Your task to perform on an android device: allow notifications from all sites in the chrome app Image 0: 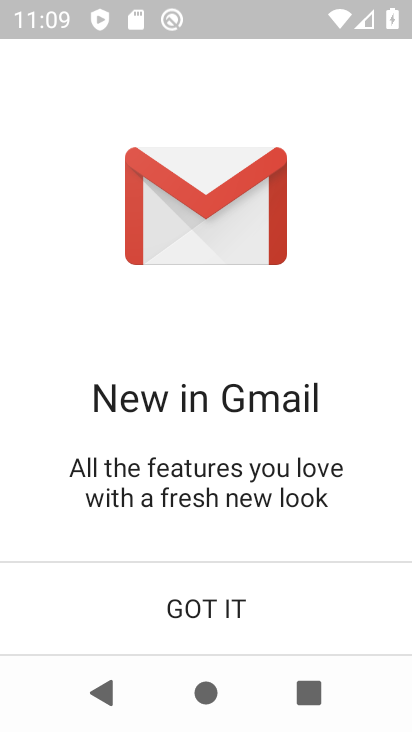
Step 0: click (374, 421)
Your task to perform on an android device: allow notifications from all sites in the chrome app Image 1: 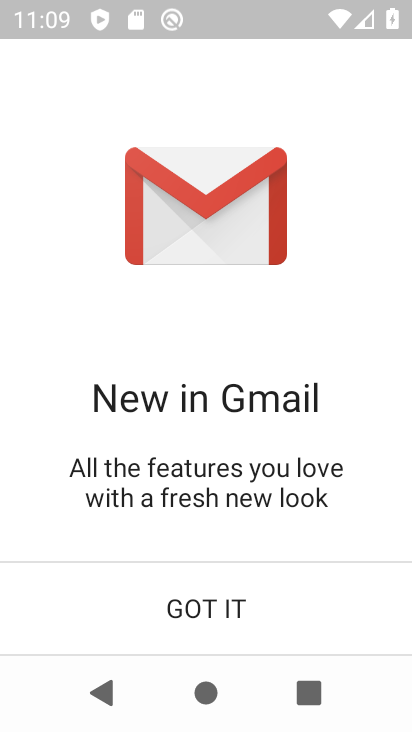
Step 1: press home button
Your task to perform on an android device: allow notifications from all sites in the chrome app Image 2: 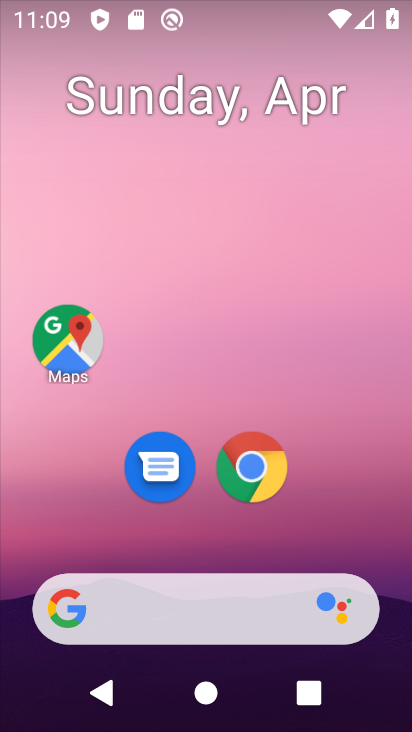
Step 2: click (252, 469)
Your task to perform on an android device: allow notifications from all sites in the chrome app Image 3: 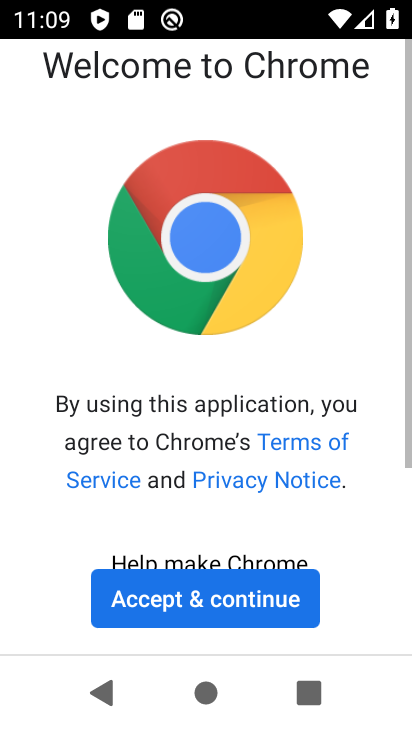
Step 3: click (160, 583)
Your task to perform on an android device: allow notifications from all sites in the chrome app Image 4: 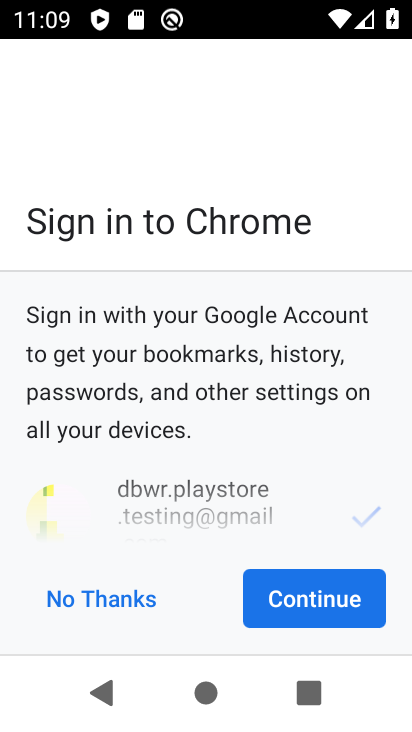
Step 4: click (259, 604)
Your task to perform on an android device: allow notifications from all sites in the chrome app Image 5: 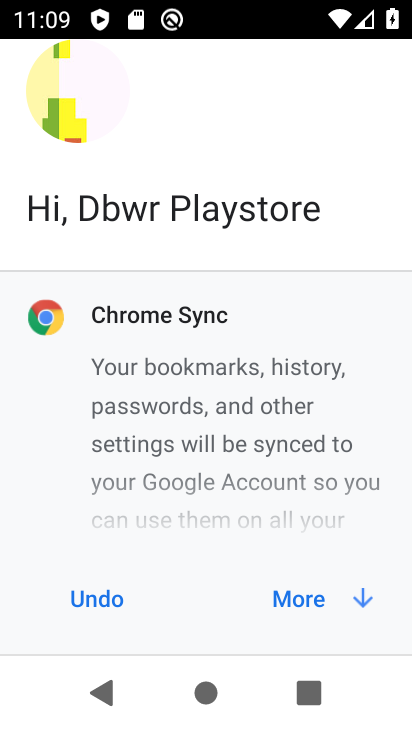
Step 5: click (290, 599)
Your task to perform on an android device: allow notifications from all sites in the chrome app Image 6: 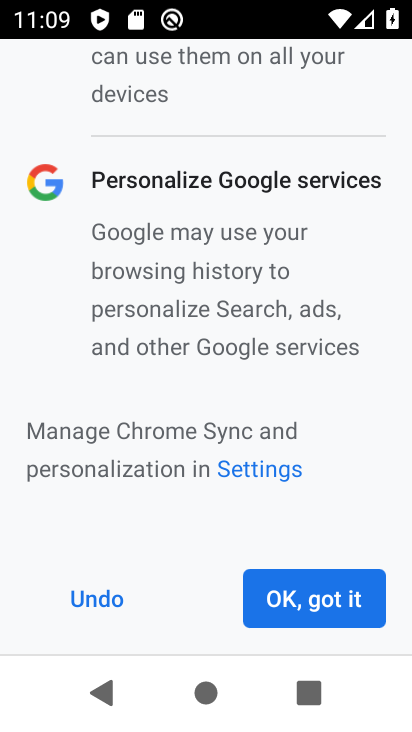
Step 6: click (300, 589)
Your task to perform on an android device: allow notifications from all sites in the chrome app Image 7: 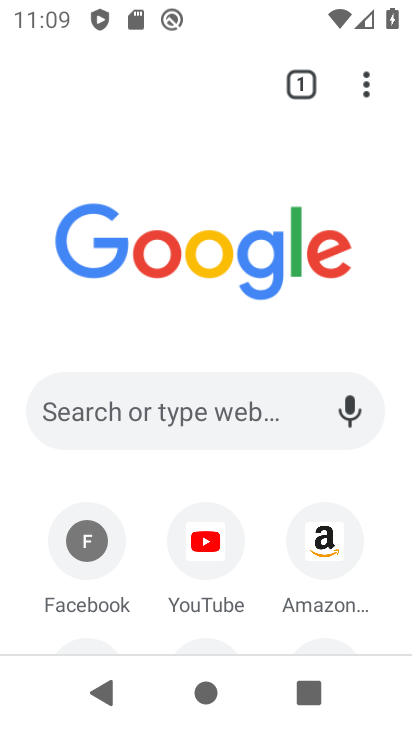
Step 7: drag from (364, 90) to (135, 525)
Your task to perform on an android device: allow notifications from all sites in the chrome app Image 8: 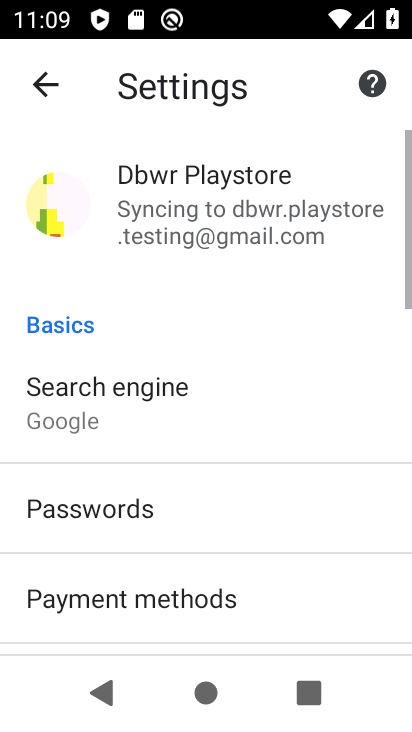
Step 8: drag from (189, 568) to (342, 85)
Your task to perform on an android device: allow notifications from all sites in the chrome app Image 9: 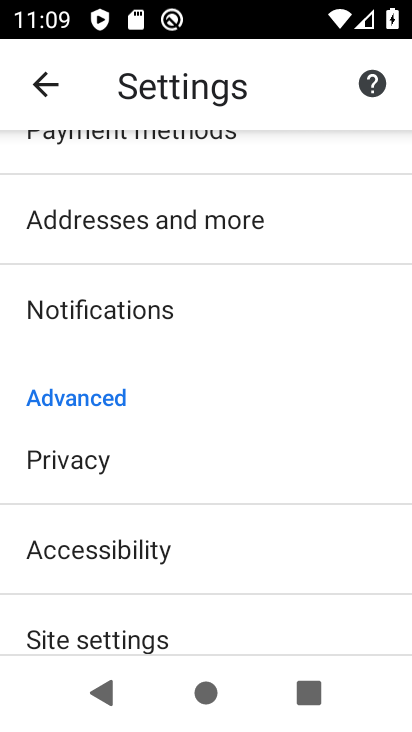
Step 9: drag from (187, 629) to (367, 133)
Your task to perform on an android device: allow notifications from all sites in the chrome app Image 10: 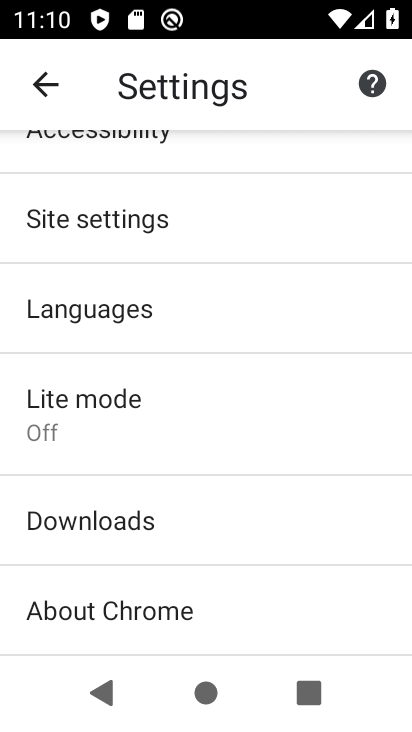
Step 10: drag from (130, 556) to (250, 147)
Your task to perform on an android device: allow notifications from all sites in the chrome app Image 11: 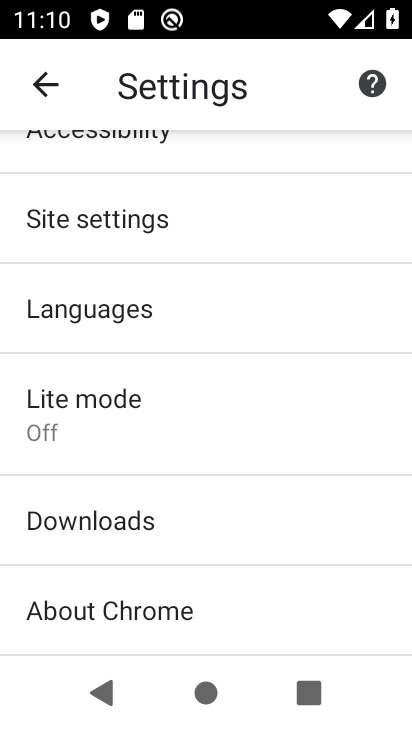
Step 11: drag from (156, 222) to (192, 677)
Your task to perform on an android device: allow notifications from all sites in the chrome app Image 12: 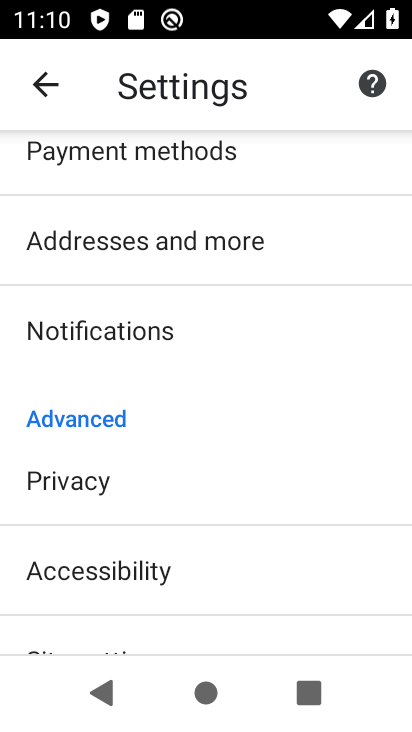
Step 12: drag from (181, 466) to (246, 198)
Your task to perform on an android device: allow notifications from all sites in the chrome app Image 13: 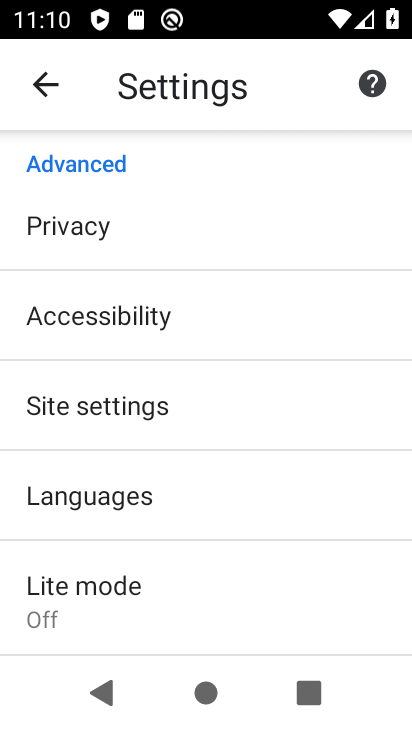
Step 13: drag from (203, 257) to (201, 728)
Your task to perform on an android device: allow notifications from all sites in the chrome app Image 14: 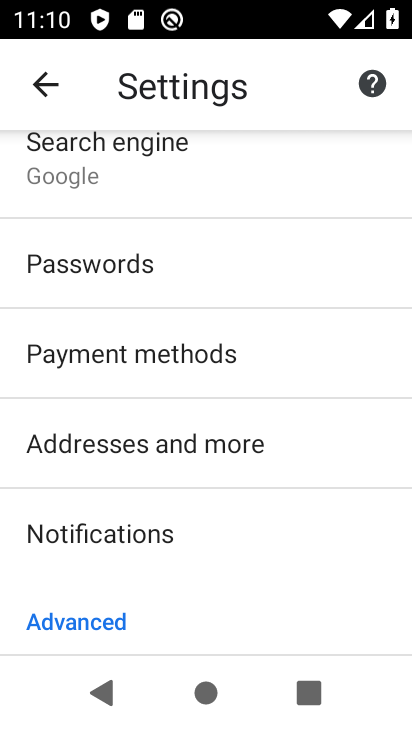
Step 14: drag from (166, 325) to (215, 670)
Your task to perform on an android device: allow notifications from all sites in the chrome app Image 15: 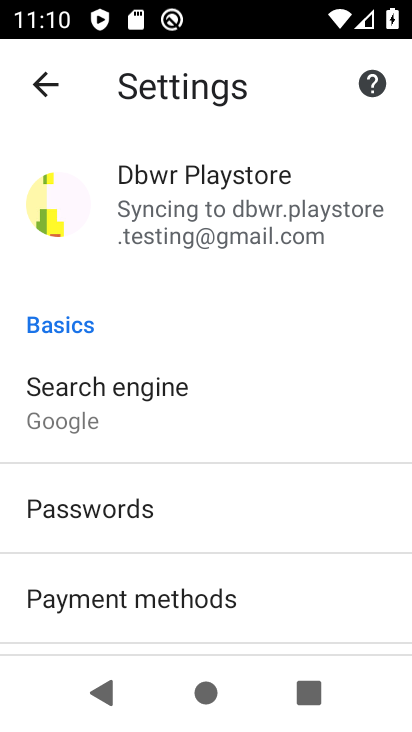
Step 15: drag from (175, 604) to (266, 148)
Your task to perform on an android device: allow notifications from all sites in the chrome app Image 16: 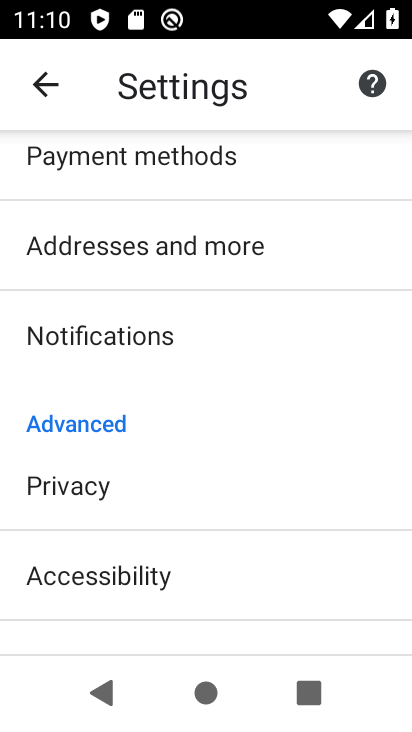
Step 16: drag from (155, 554) to (241, 303)
Your task to perform on an android device: allow notifications from all sites in the chrome app Image 17: 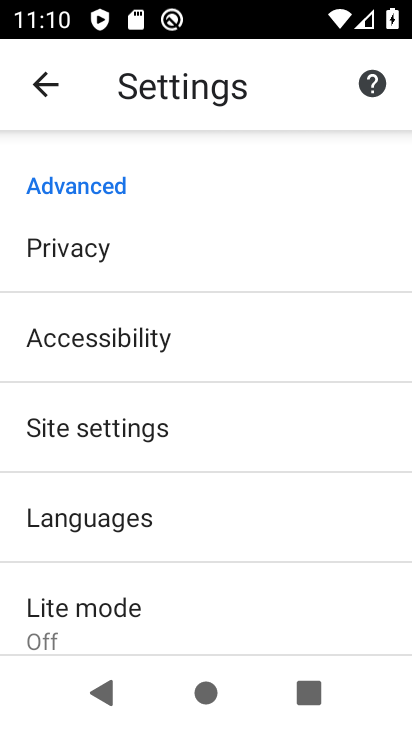
Step 17: drag from (165, 578) to (285, 288)
Your task to perform on an android device: allow notifications from all sites in the chrome app Image 18: 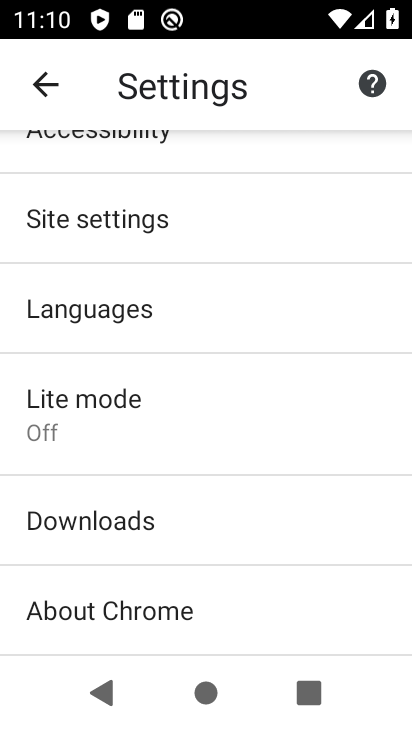
Step 18: drag from (121, 549) to (240, 313)
Your task to perform on an android device: allow notifications from all sites in the chrome app Image 19: 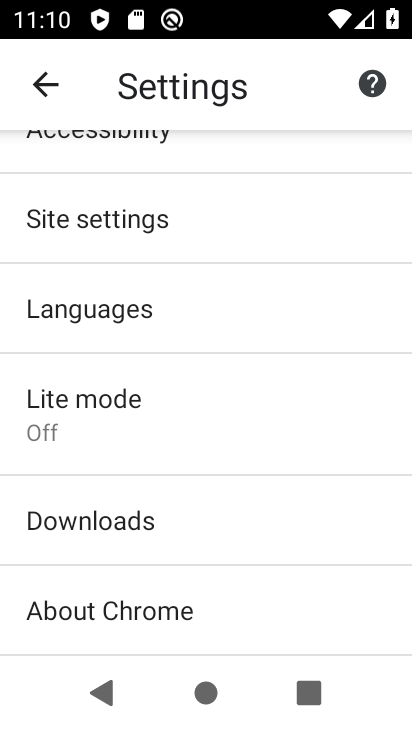
Step 19: drag from (193, 575) to (256, 222)
Your task to perform on an android device: allow notifications from all sites in the chrome app Image 20: 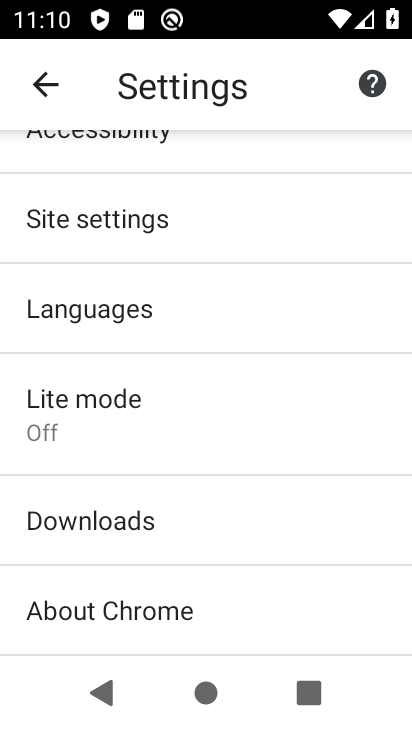
Step 20: drag from (184, 522) to (278, 260)
Your task to perform on an android device: allow notifications from all sites in the chrome app Image 21: 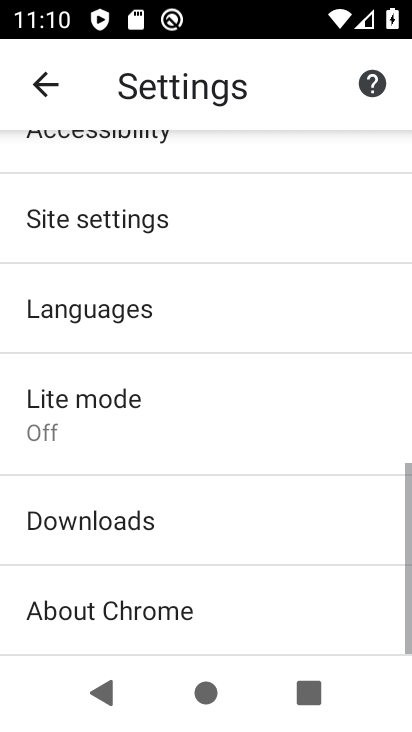
Step 21: drag from (261, 244) to (188, 599)
Your task to perform on an android device: allow notifications from all sites in the chrome app Image 22: 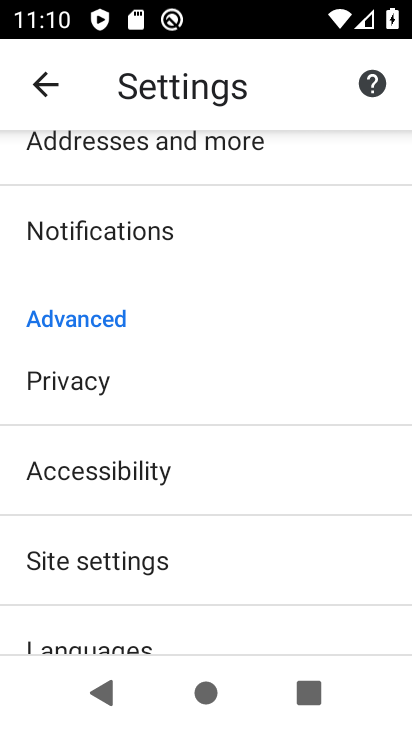
Step 22: drag from (189, 587) to (276, 267)
Your task to perform on an android device: allow notifications from all sites in the chrome app Image 23: 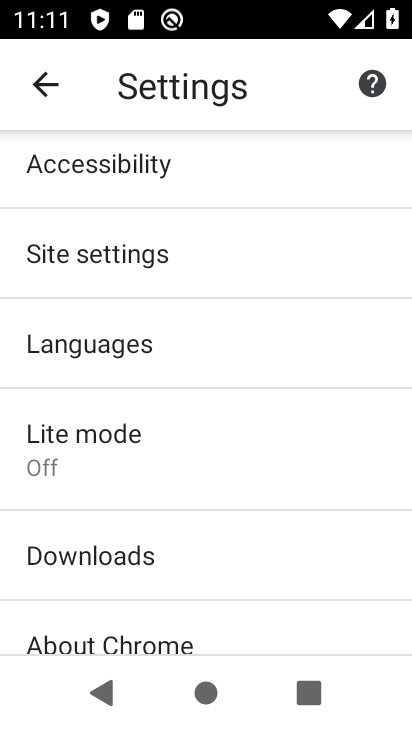
Step 23: drag from (198, 512) to (312, 144)
Your task to perform on an android device: allow notifications from all sites in the chrome app Image 24: 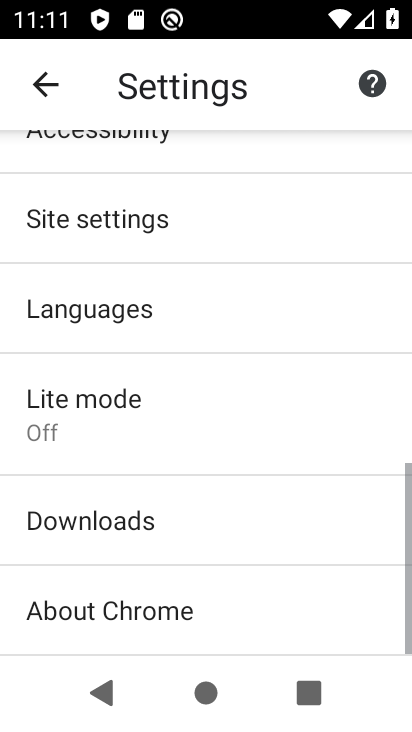
Step 24: drag from (163, 558) to (284, 269)
Your task to perform on an android device: allow notifications from all sites in the chrome app Image 25: 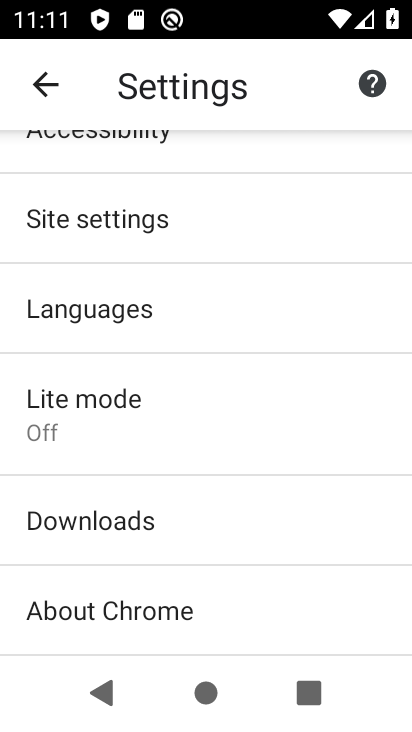
Step 25: drag from (203, 538) to (311, 149)
Your task to perform on an android device: allow notifications from all sites in the chrome app Image 26: 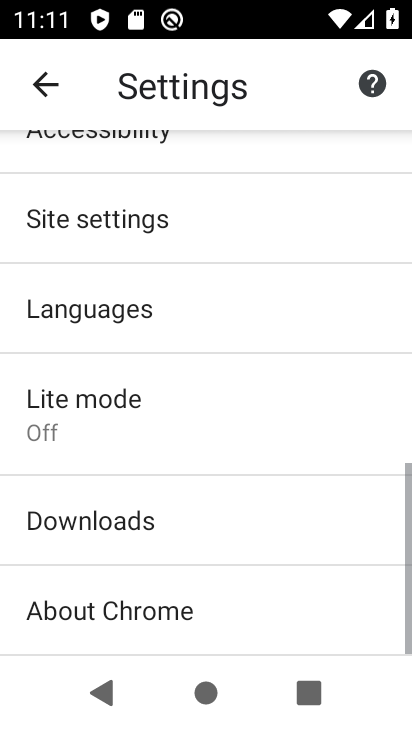
Step 26: drag from (147, 468) to (180, 314)
Your task to perform on an android device: allow notifications from all sites in the chrome app Image 27: 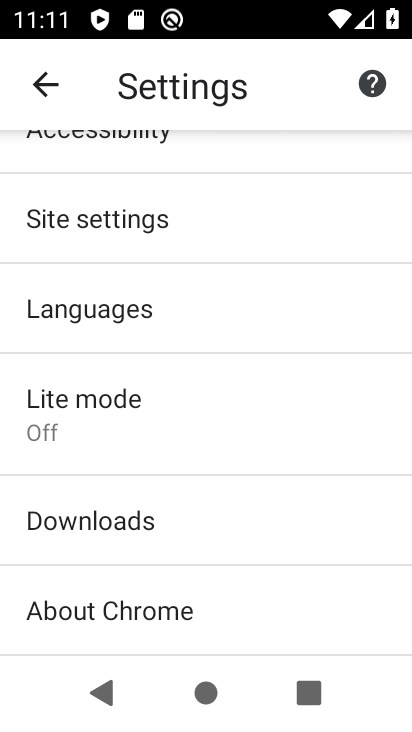
Step 27: click (169, 218)
Your task to perform on an android device: allow notifications from all sites in the chrome app Image 28: 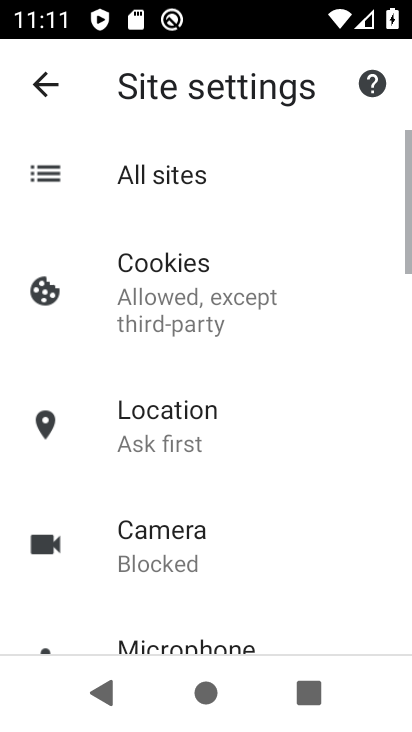
Step 28: drag from (198, 494) to (266, 187)
Your task to perform on an android device: allow notifications from all sites in the chrome app Image 29: 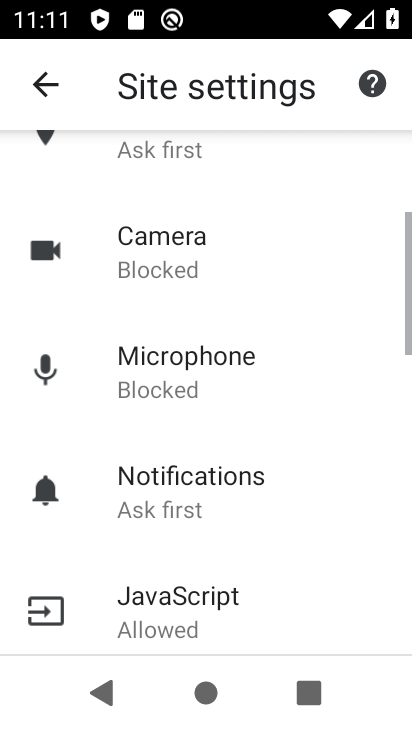
Step 29: click (178, 500)
Your task to perform on an android device: allow notifications from all sites in the chrome app Image 30: 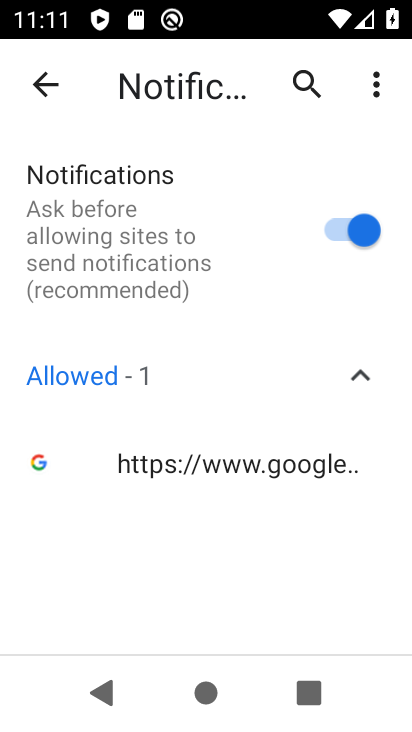
Step 30: task complete